Your task to perform on an android device: star an email in the gmail app Image 0: 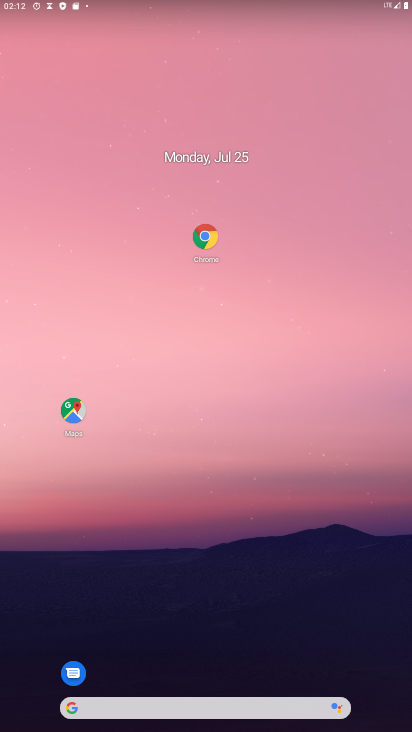
Step 0: drag from (192, 713) to (276, 15)
Your task to perform on an android device: star an email in the gmail app Image 1: 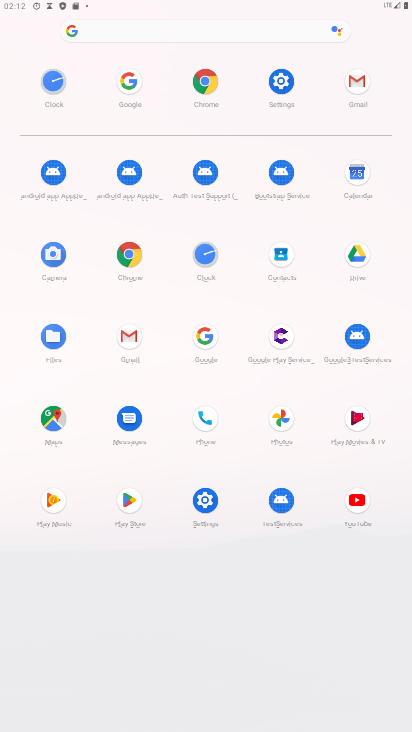
Step 1: click (353, 96)
Your task to perform on an android device: star an email in the gmail app Image 2: 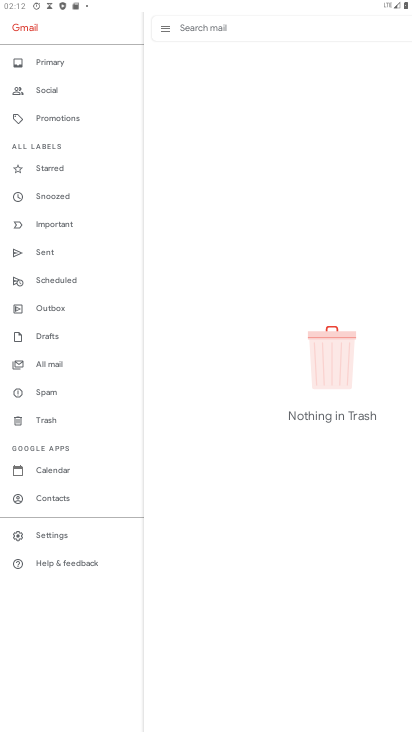
Step 2: click (46, 166)
Your task to perform on an android device: star an email in the gmail app Image 3: 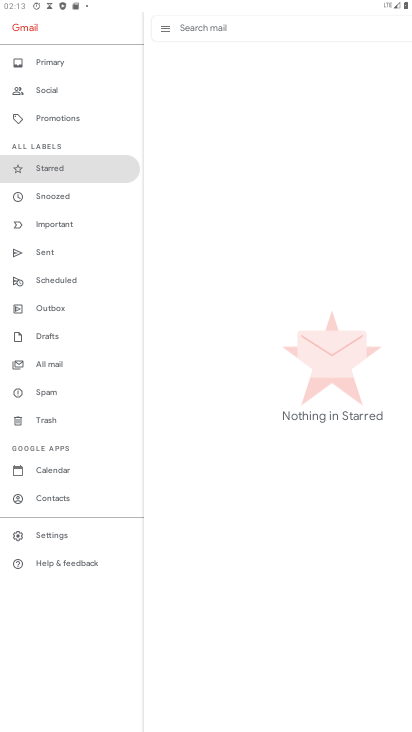
Step 3: task complete